Your task to perform on an android device: Open the Play Movies app and select the watchlist tab. Image 0: 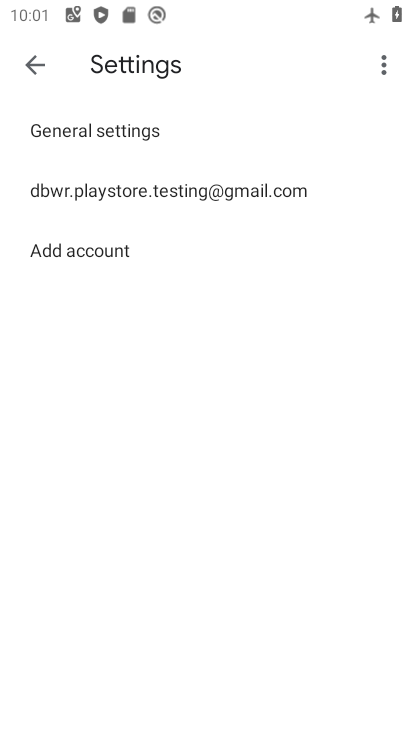
Step 0: press home button
Your task to perform on an android device: Open the Play Movies app and select the watchlist tab. Image 1: 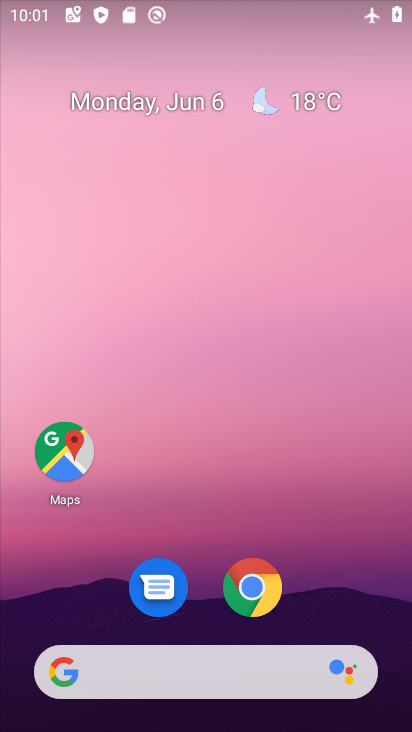
Step 1: drag from (333, 554) to (318, 162)
Your task to perform on an android device: Open the Play Movies app and select the watchlist tab. Image 2: 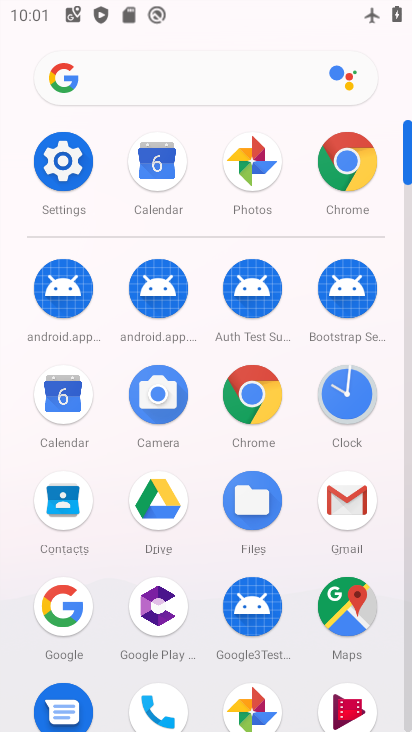
Step 2: click (338, 703)
Your task to perform on an android device: Open the Play Movies app and select the watchlist tab. Image 3: 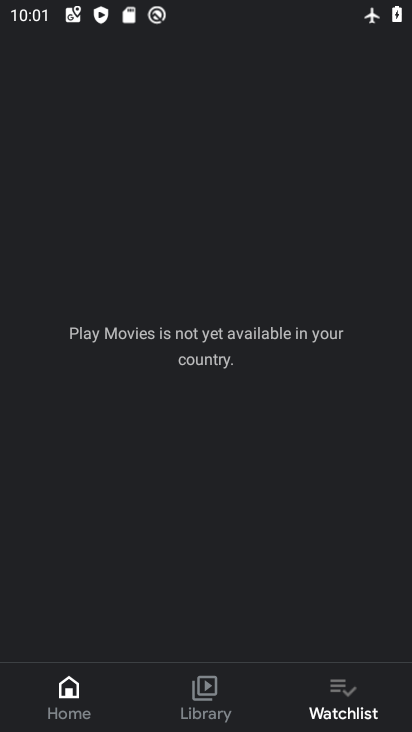
Step 3: click (346, 690)
Your task to perform on an android device: Open the Play Movies app and select the watchlist tab. Image 4: 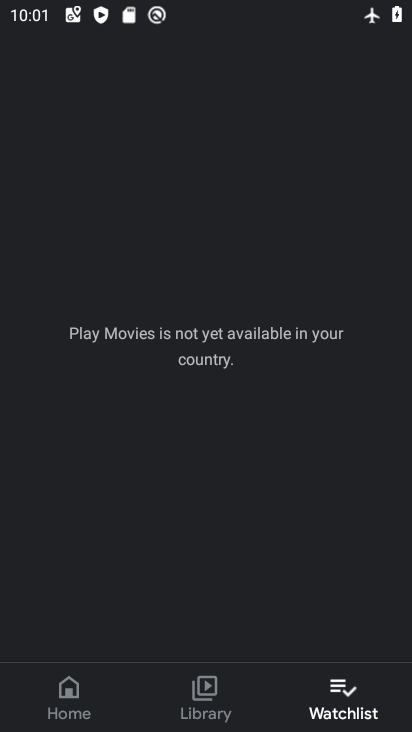
Step 4: task complete